Your task to perform on an android device: find which apps use the phone's location Image 0: 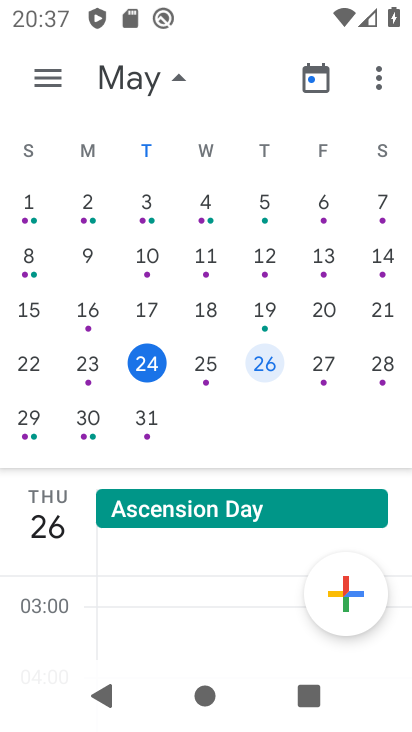
Step 0: press home button
Your task to perform on an android device: find which apps use the phone's location Image 1: 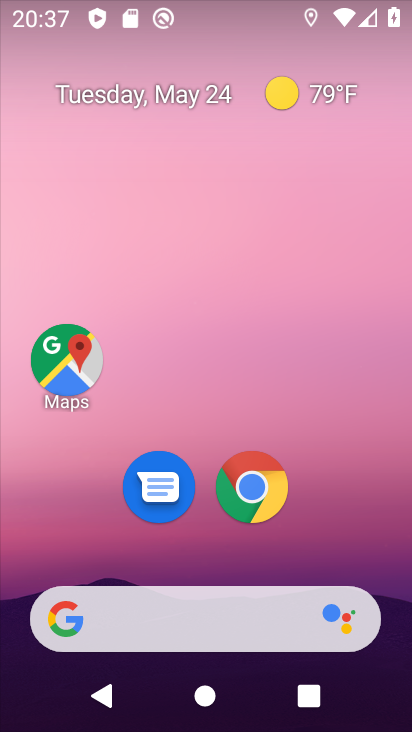
Step 1: drag from (329, 552) to (345, 65)
Your task to perform on an android device: find which apps use the phone's location Image 2: 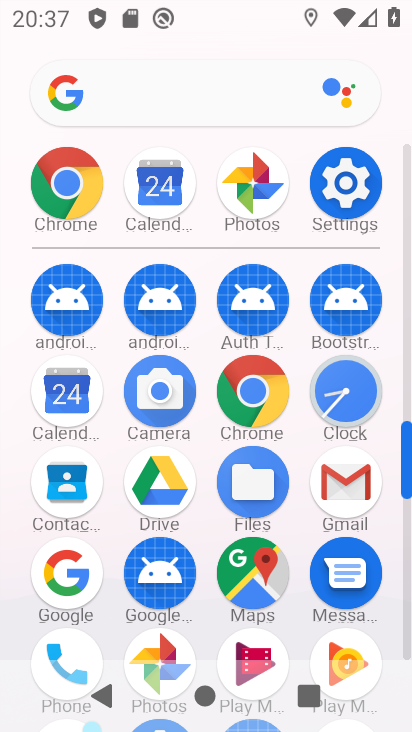
Step 2: drag from (289, 275) to (299, 43)
Your task to perform on an android device: find which apps use the phone's location Image 3: 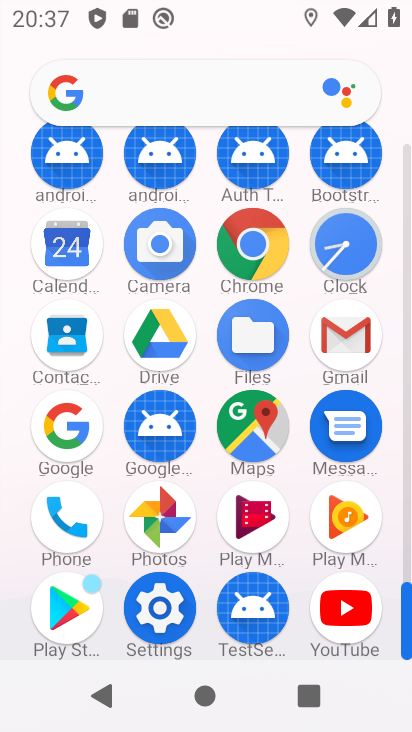
Step 3: click (47, 505)
Your task to perform on an android device: find which apps use the phone's location Image 4: 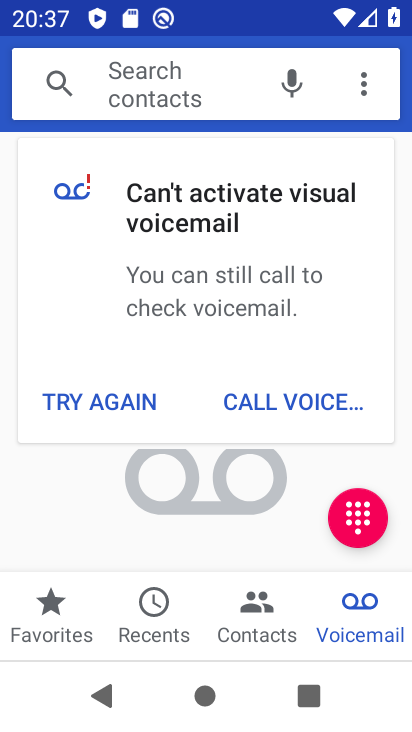
Step 4: press back button
Your task to perform on an android device: find which apps use the phone's location Image 5: 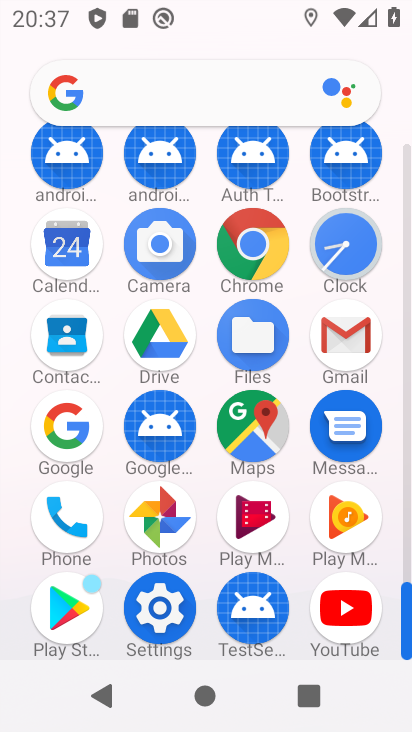
Step 5: click (55, 513)
Your task to perform on an android device: find which apps use the phone's location Image 6: 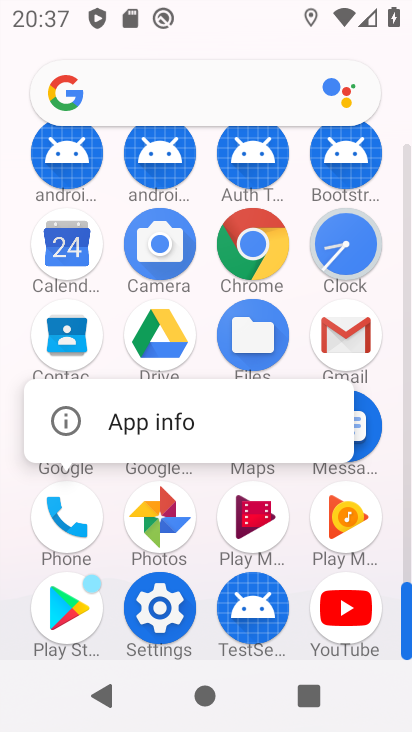
Step 6: click (104, 421)
Your task to perform on an android device: find which apps use the phone's location Image 7: 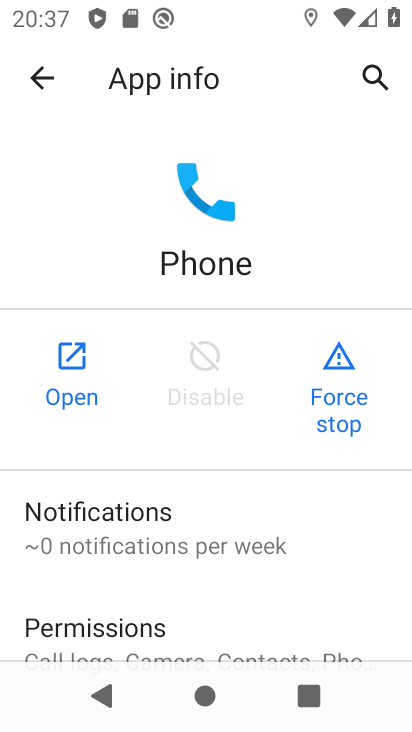
Step 7: drag from (287, 602) to (300, 223)
Your task to perform on an android device: find which apps use the phone's location Image 8: 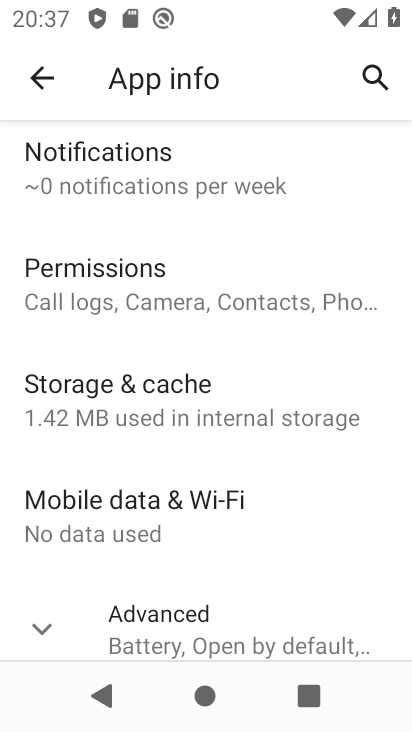
Step 8: click (103, 291)
Your task to perform on an android device: find which apps use the phone's location Image 9: 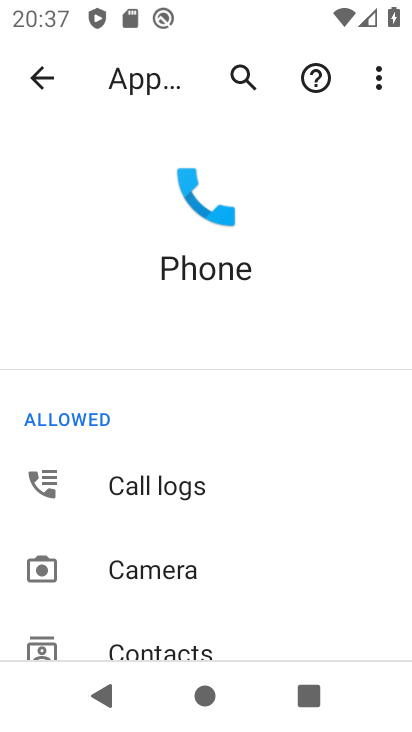
Step 9: drag from (287, 619) to (323, 193)
Your task to perform on an android device: find which apps use the phone's location Image 10: 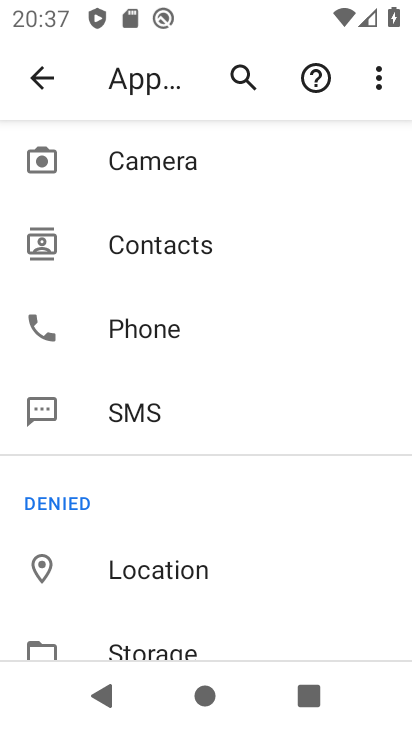
Step 10: click (153, 567)
Your task to perform on an android device: find which apps use the phone's location Image 11: 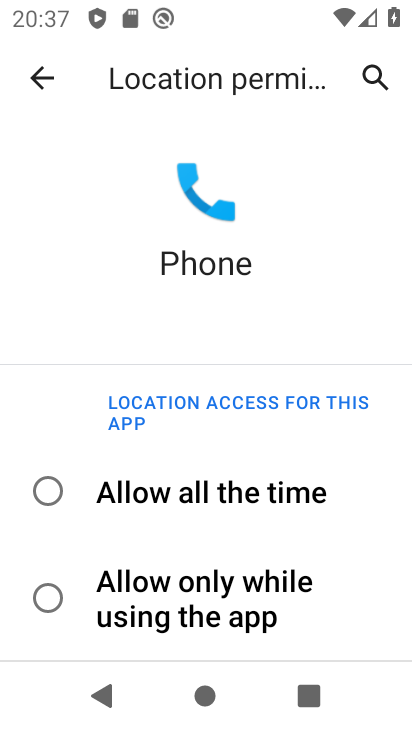
Step 11: task complete